Your task to perform on an android device: What's on my calendar today? Image 0: 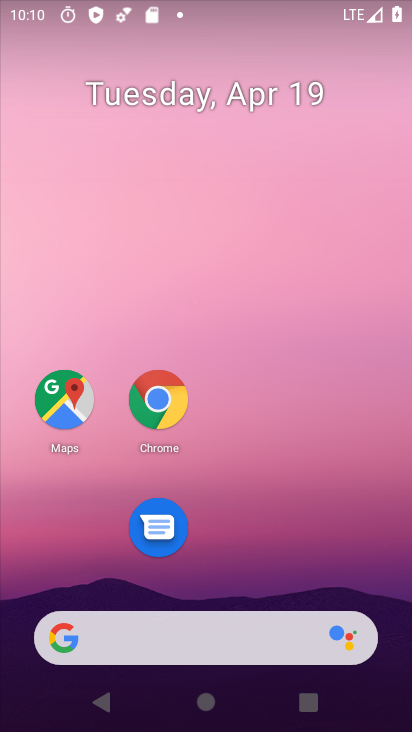
Step 0: drag from (231, 463) to (241, 169)
Your task to perform on an android device: What's on my calendar today? Image 1: 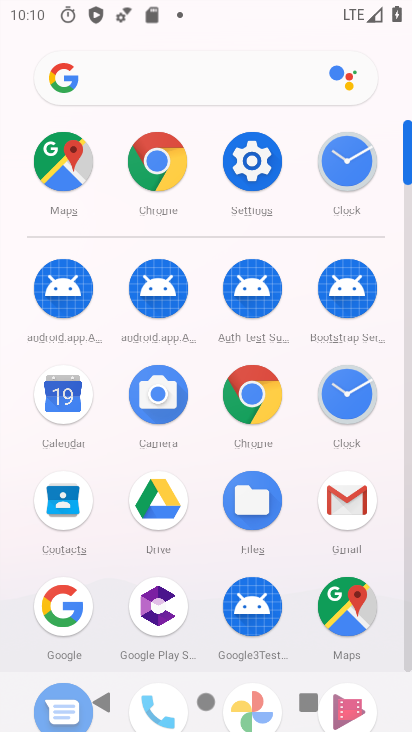
Step 1: click (77, 407)
Your task to perform on an android device: What's on my calendar today? Image 2: 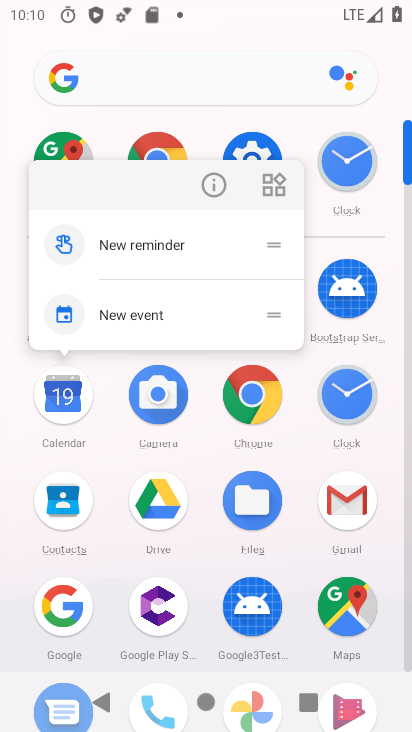
Step 2: click (63, 416)
Your task to perform on an android device: What's on my calendar today? Image 3: 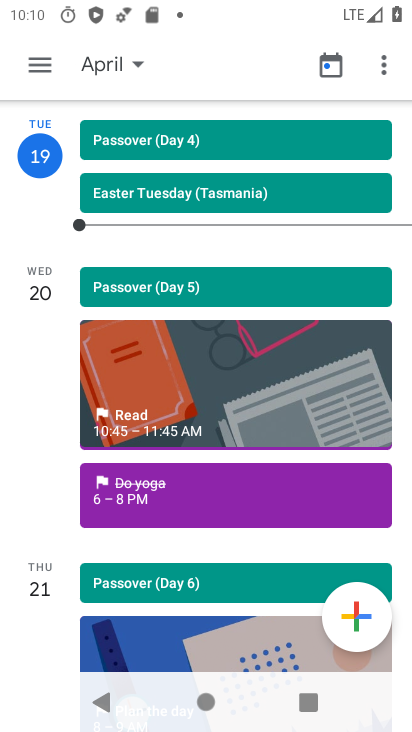
Step 3: click (44, 62)
Your task to perform on an android device: What's on my calendar today? Image 4: 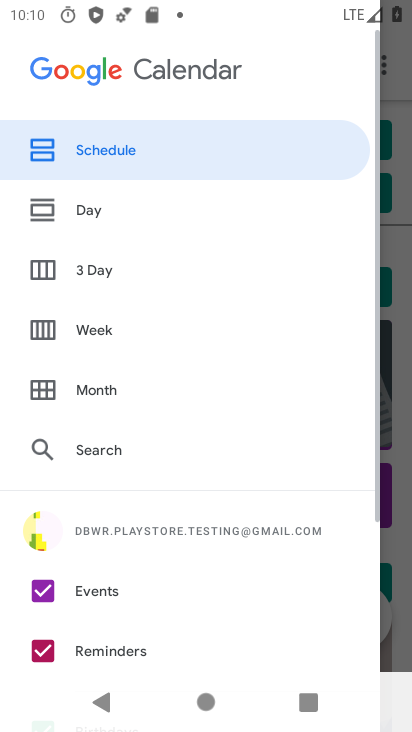
Step 4: click (131, 200)
Your task to perform on an android device: What's on my calendar today? Image 5: 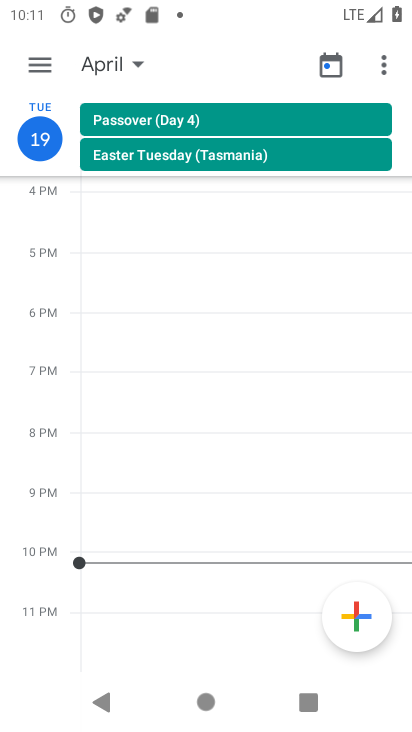
Step 5: task complete